Your task to perform on an android device: When is my next meeting? Image 0: 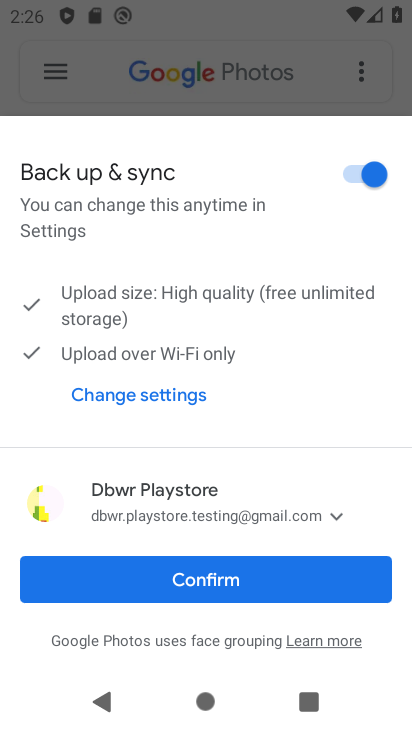
Step 0: press home button
Your task to perform on an android device: When is my next meeting? Image 1: 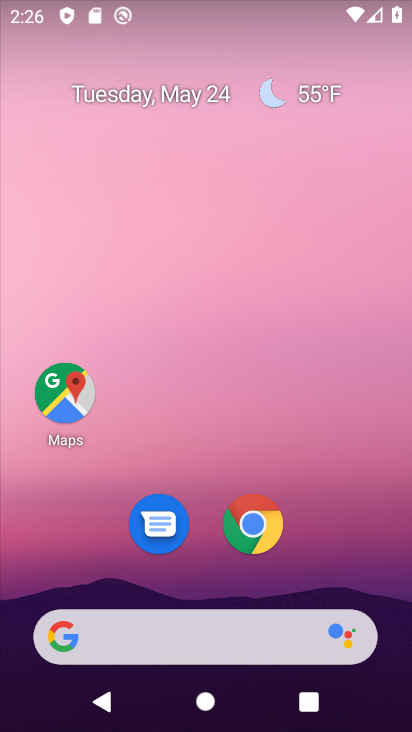
Step 1: drag from (211, 496) to (223, 62)
Your task to perform on an android device: When is my next meeting? Image 2: 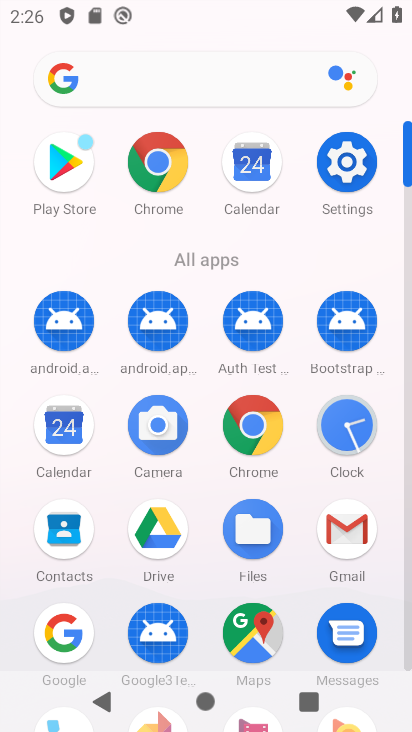
Step 2: click (65, 420)
Your task to perform on an android device: When is my next meeting? Image 3: 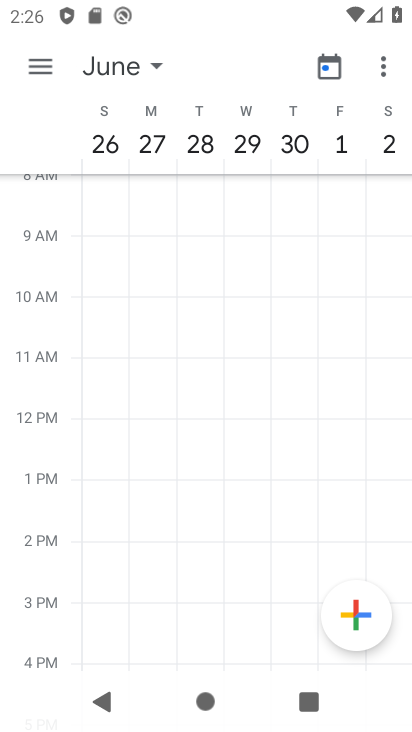
Step 3: drag from (126, 302) to (410, 379)
Your task to perform on an android device: When is my next meeting? Image 4: 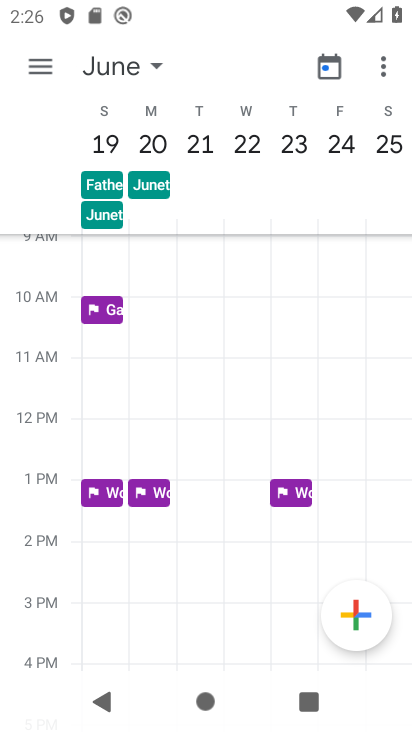
Step 4: drag from (129, 310) to (402, 413)
Your task to perform on an android device: When is my next meeting? Image 5: 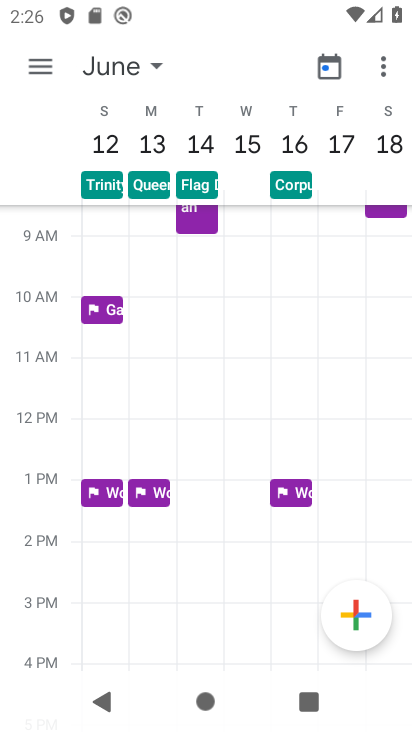
Step 5: drag from (108, 373) to (395, 460)
Your task to perform on an android device: When is my next meeting? Image 6: 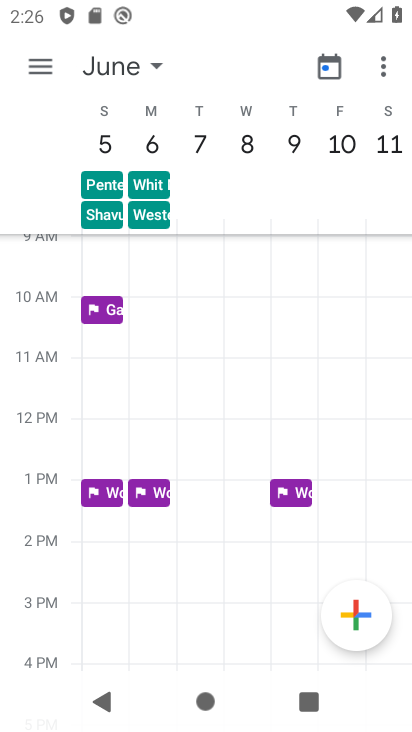
Step 6: drag from (120, 368) to (411, 469)
Your task to perform on an android device: When is my next meeting? Image 7: 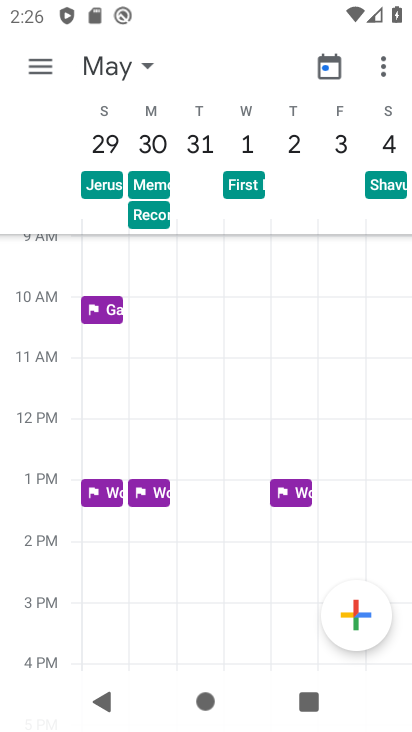
Step 7: drag from (86, 383) to (403, 471)
Your task to perform on an android device: When is my next meeting? Image 8: 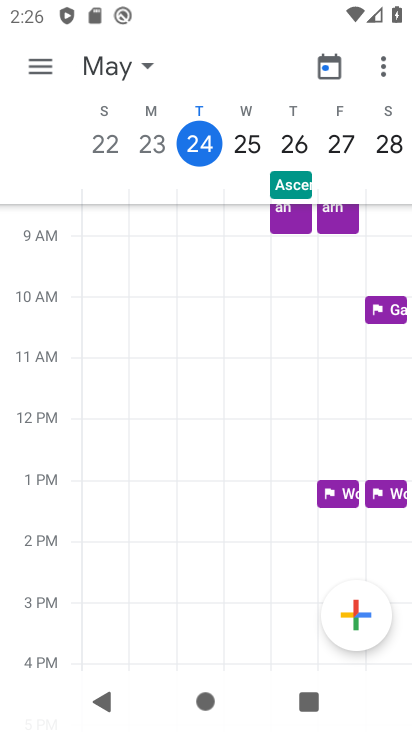
Step 8: click (194, 144)
Your task to perform on an android device: When is my next meeting? Image 9: 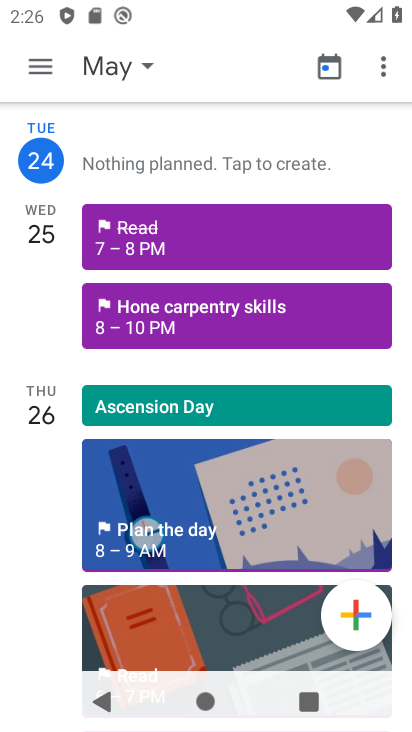
Step 9: task complete